Your task to perform on an android device: find which apps use the phone's location Image 0: 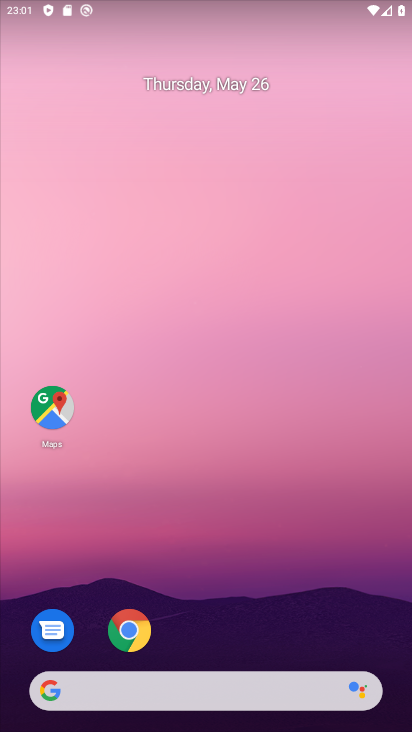
Step 0: drag from (201, 369) to (245, 164)
Your task to perform on an android device: find which apps use the phone's location Image 1: 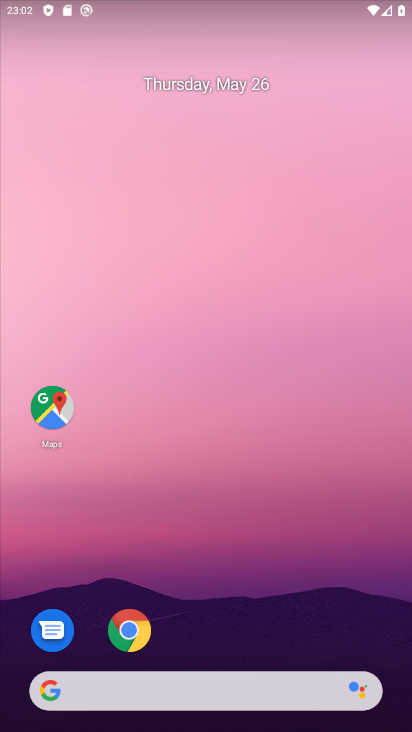
Step 1: drag from (223, 610) to (283, 168)
Your task to perform on an android device: find which apps use the phone's location Image 2: 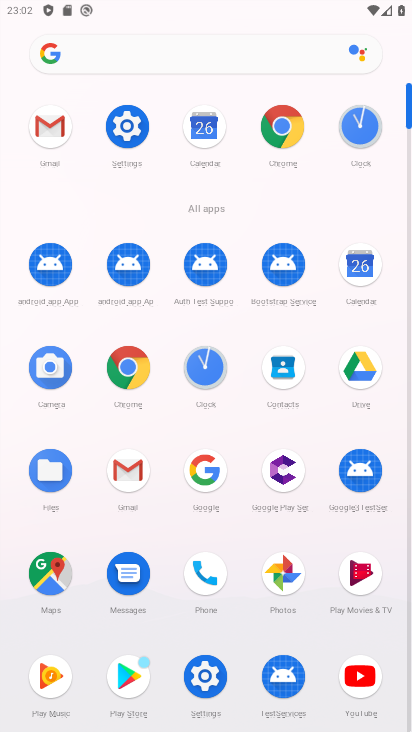
Step 2: click (124, 125)
Your task to perform on an android device: find which apps use the phone's location Image 3: 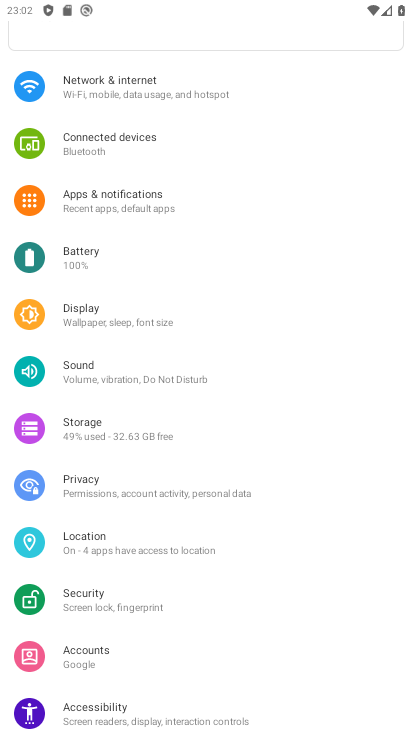
Step 3: click (77, 537)
Your task to perform on an android device: find which apps use the phone's location Image 4: 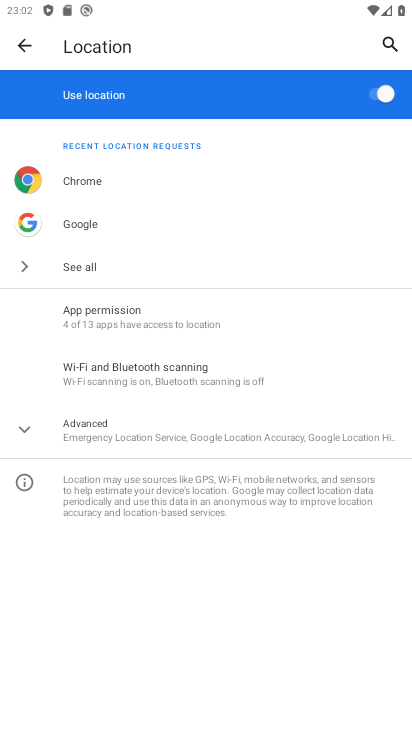
Step 4: click (120, 326)
Your task to perform on an android device: find which apps use the phone's location Image 5: 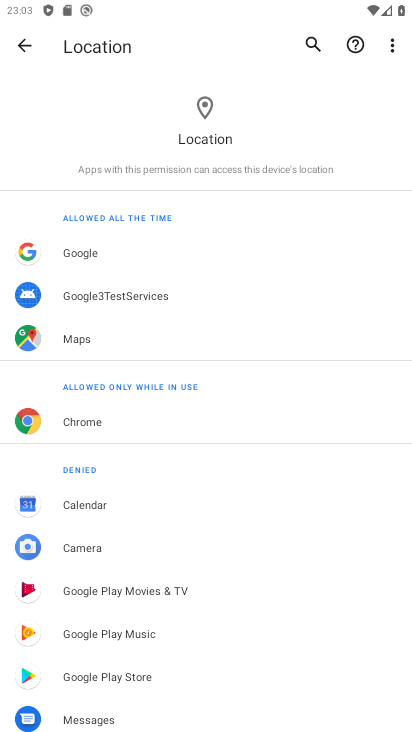
Step 5: click (89, 342)
Your task to perform on an android device: find which apps use the phone's location Image 6: 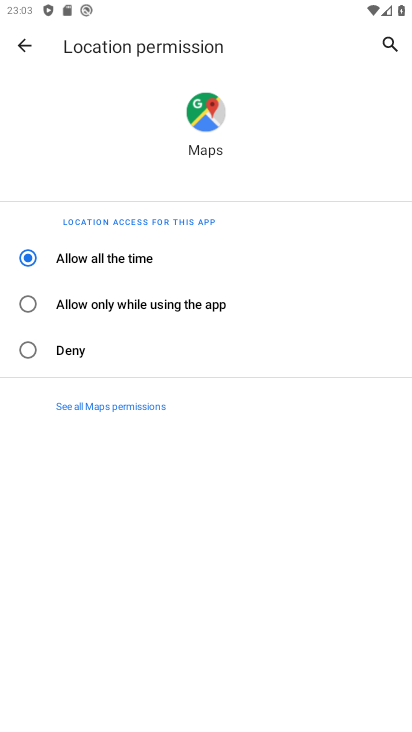
Step 6: task complete